Your task to perform on an android device: find snoozed emails in the gmail app Image 0: 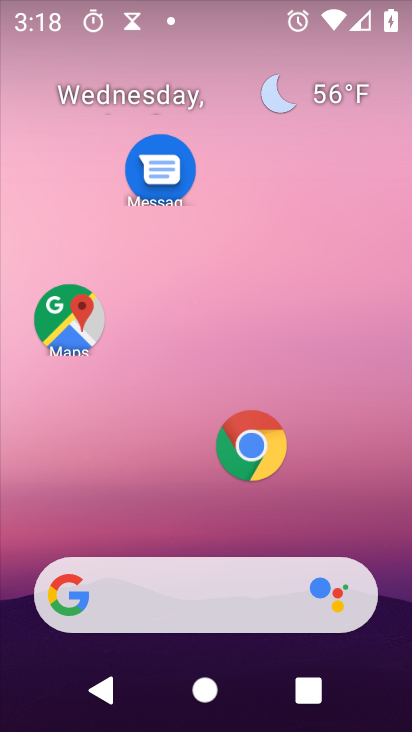
Step 0: drag from (23, 591) to (231, 244)
Your task to perform on an android device: find snoozed emails in the gmail app Image 1: 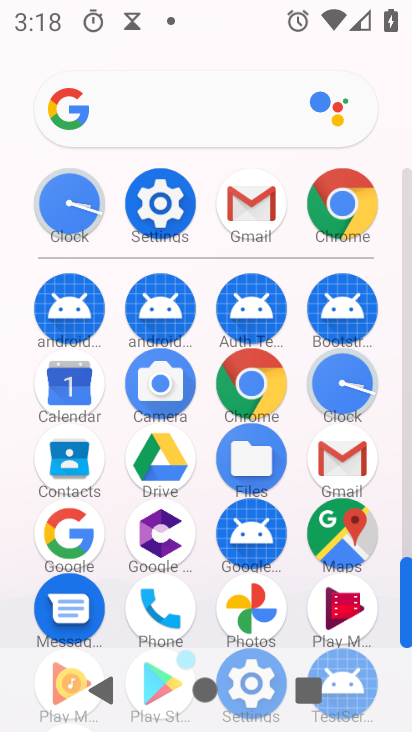
Step 1: click (323, 457)
Your task to perform on an android device: find snoozed emails in the gmail app Image 2: 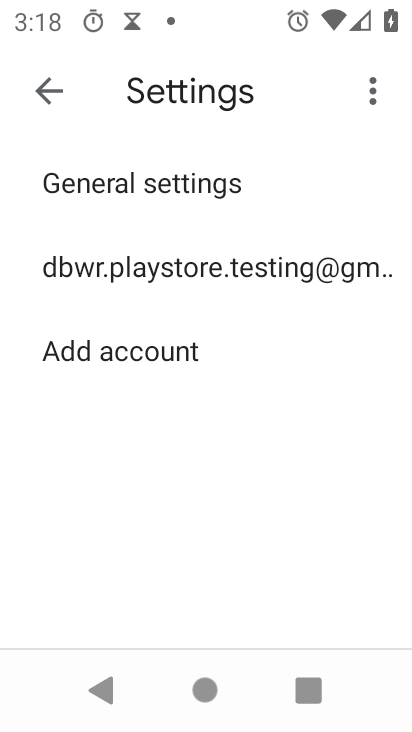
Step 2: click (47, 97)
Your task to perform on an android device: find snoozed emails in the gmail app Image 3: 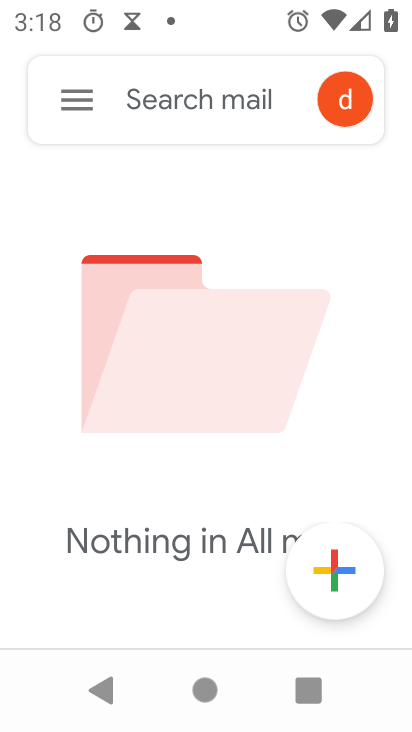
Step 3: click (58, 99)
Your task to perform on an android device: find snoozed emails in the gmail app Image 4: 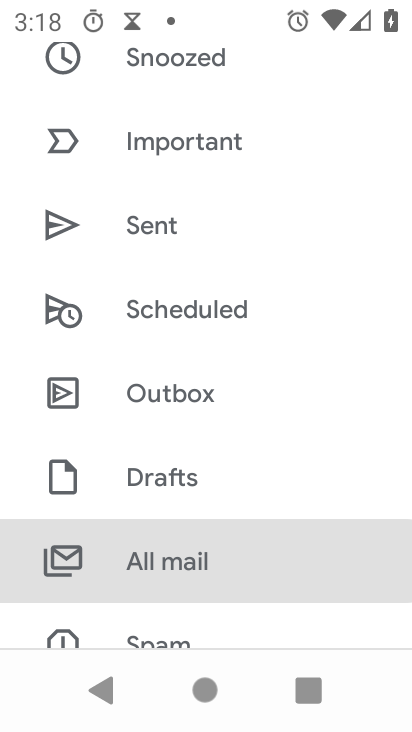
Step 4: drag from (0, 591) to (227, 125)
Your task to perform on an android device: find snoozed emails in the gmail app Image 5: 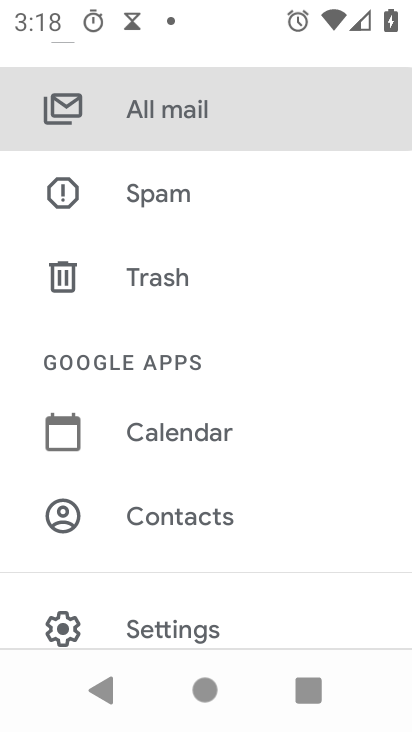
Step 5: drag from (251, 66) to (219, 651)
Your task to perform on an android device: find snoozed emails in the gmail app Image 6: 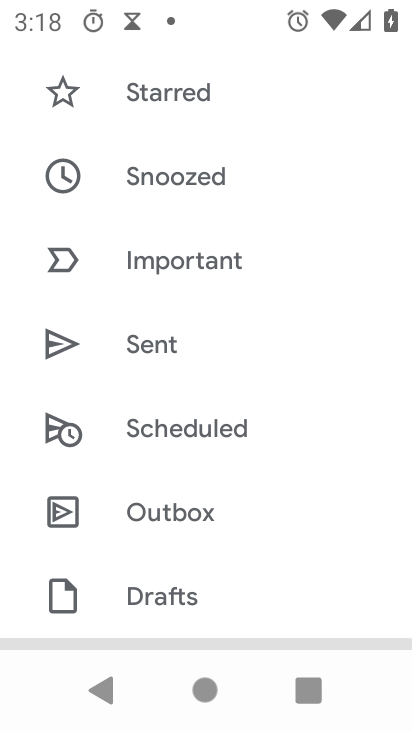
Step 6: click (196, 180)
Your task to perform on an android device: find snoozed emails in the gmail app Image 7: 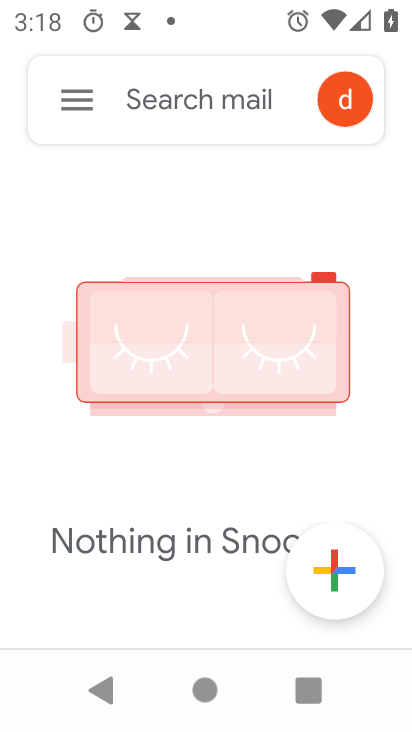
Step 7: task complete